Your task to perform on an android device: empty trash in google photos Image 0: 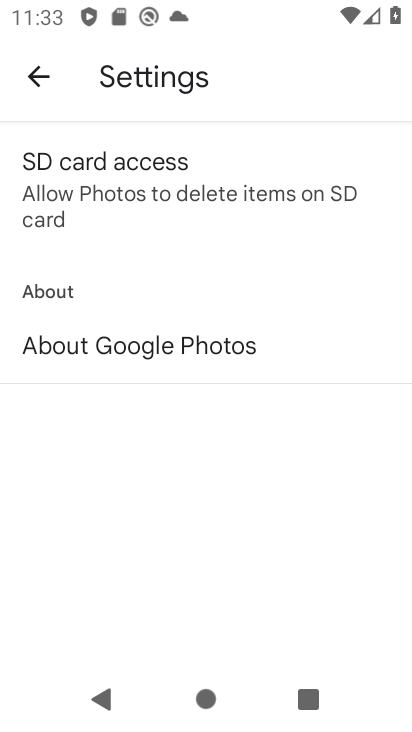
Step 0: press home button
Your task to perform on an android device: empty trash in google photos Image 1: 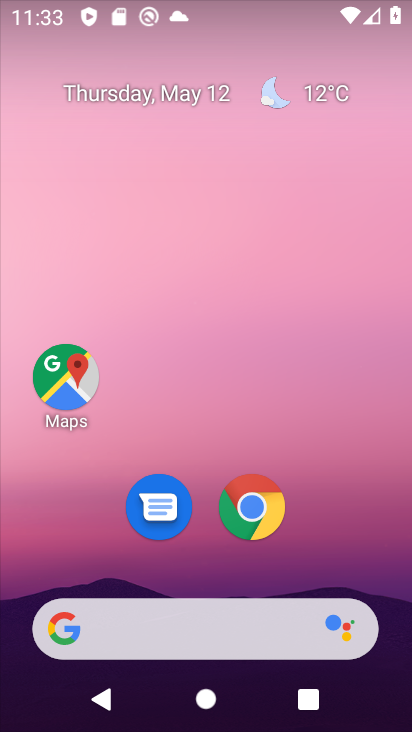
Step 1: drag from (218, 569) to (235, 1)
Your task to perform on an android device: empty trash in google photos Image 2: 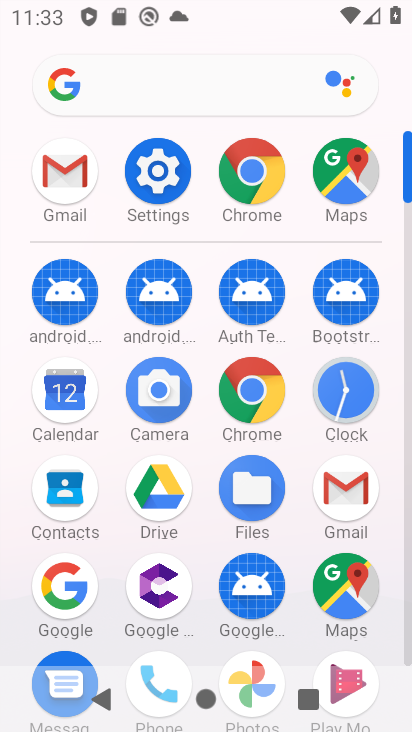
Step 2: drag from (209, 519) to (253, 183)
Your task to perform on an android device: empty trash in google photos Image 3: 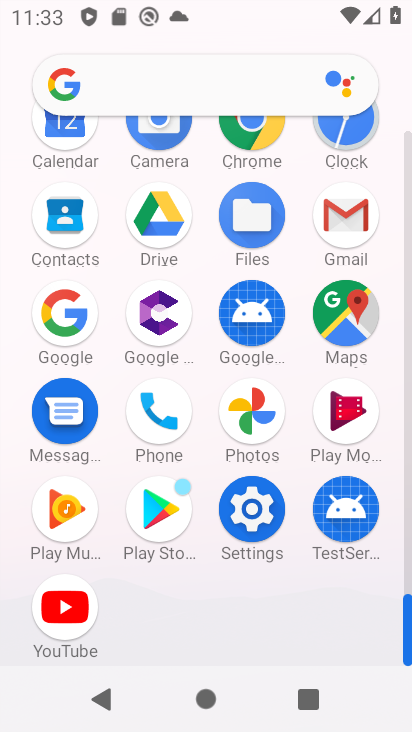
Step 3: click (253, 401)
Your task to perform on an android device: empty trash in google photos Image 4: 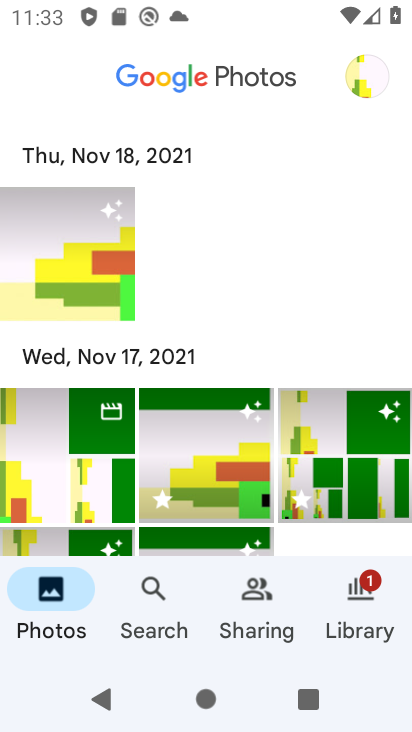
Step 4: click (352, 594)
Your task to perform on an android device: empty trash in google photos Image 5: 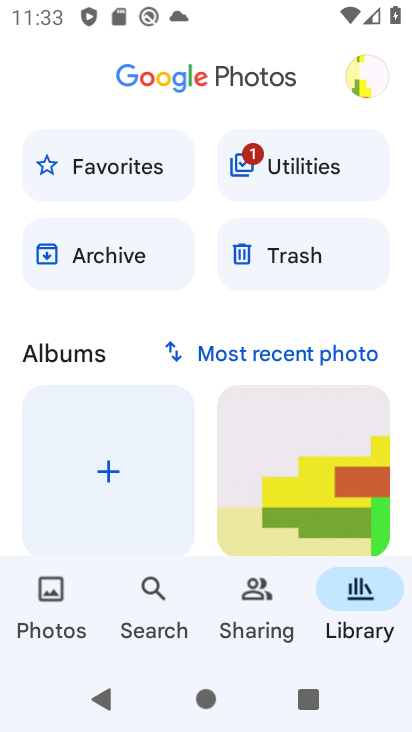
Step 5: click (308, 255)
Your task to perform on an android device: empty trash in google photos Image 6: 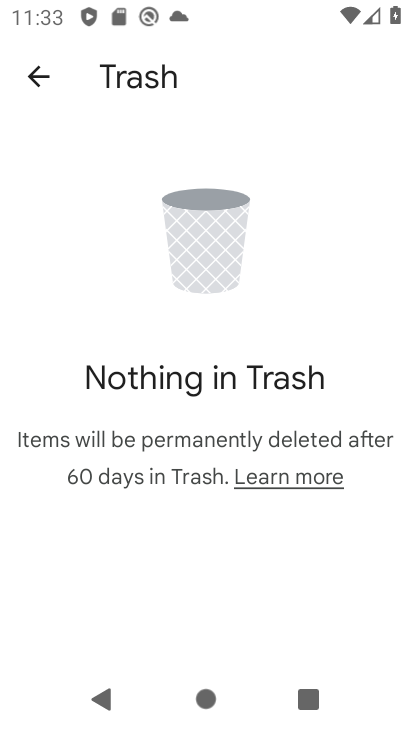
Step 6: task complete